Your task to perform on an android device: search for starred emails in the gmail app Image 0: 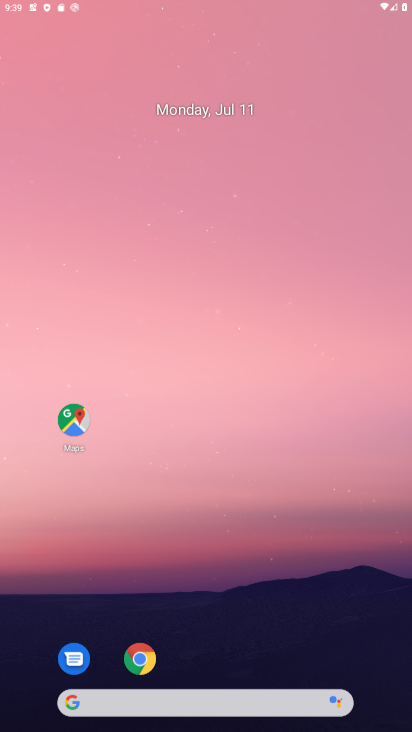
Step 0: click (238, 1)
Your task to perform on an android device: search for starred emails in the gmail app Image 1: 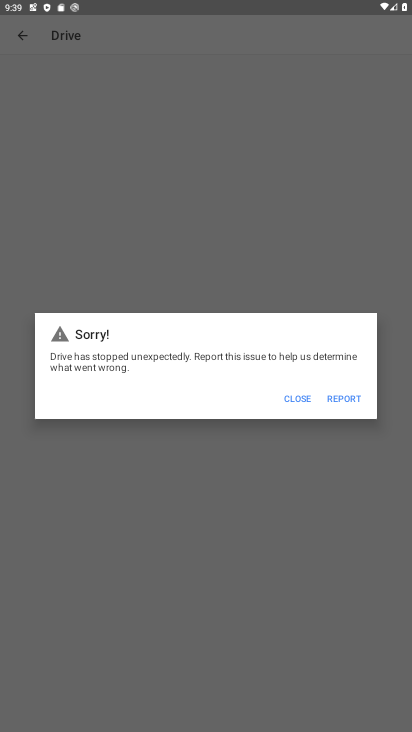
Step 1: click (305, 408)
Your task to perform on an android device: search for starred emails in the gmail app Image 2: 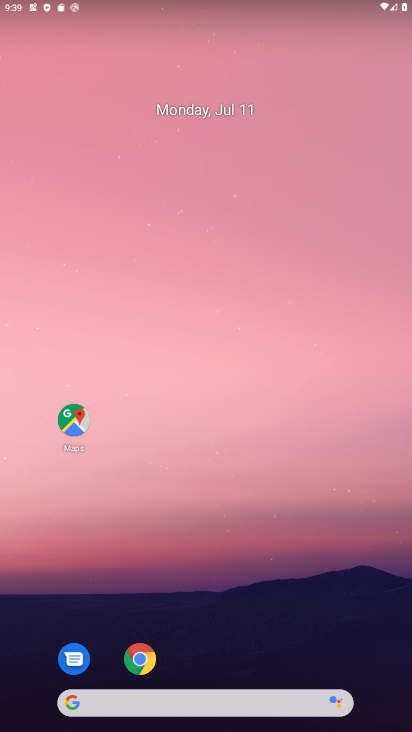
Step 2: drag from (280, 558) to (301, 5)
Your task to perform on an android device: search for starred emails in the gmail app Image 3: 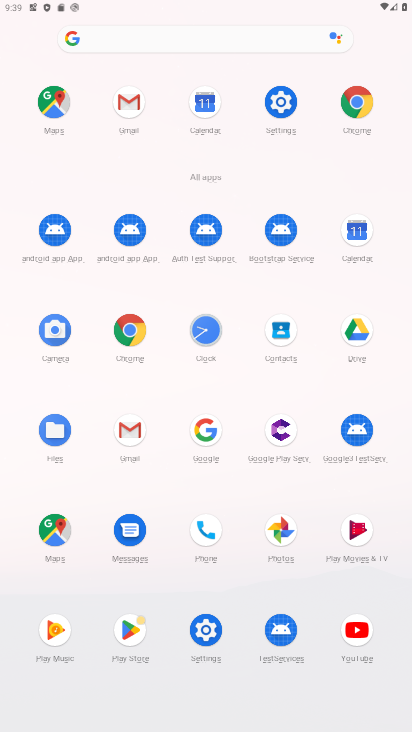
Step 3: click (127, 98)
Your task to perform on an android device: search for starred emails in the gmail app Image 4: 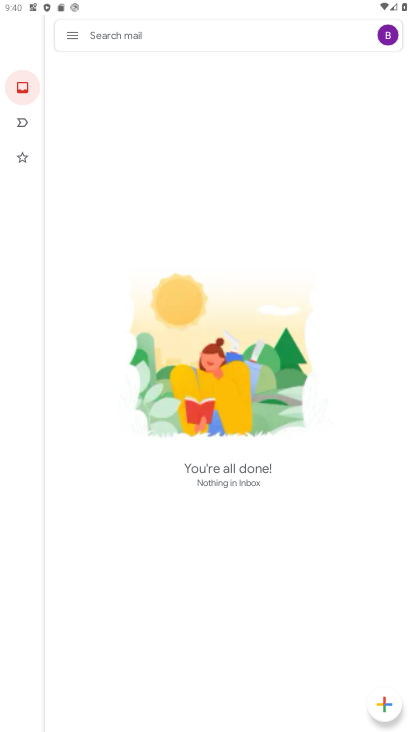
Step 4: click (62, 35)
Your task to perform on an android device: search for starred emails in the gmail app Image 5: 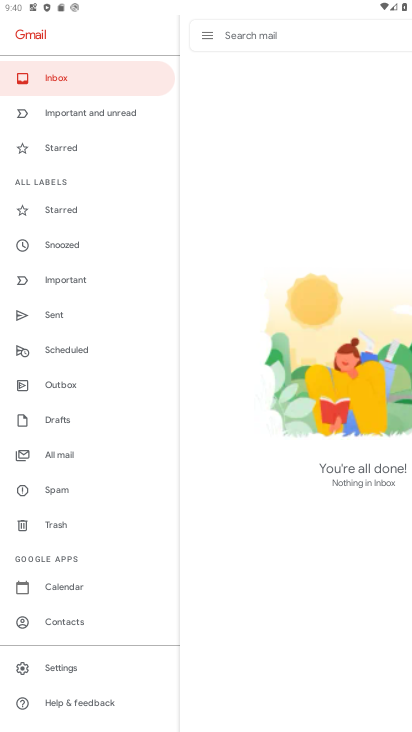
Step 5: click (30, 153)
Your task to perform on an android device: search for starred emails in the gmail app Image 6: 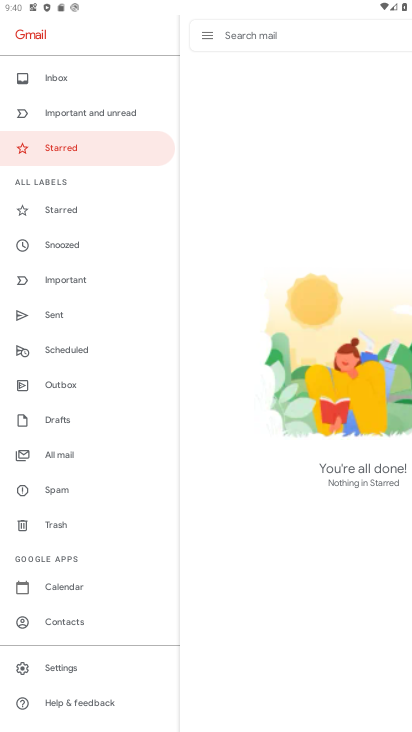
Step 6: task complete